Your task to perform on an android device: Search for "The Dispatcher" by John Scalzi on Goodreads Image 0: 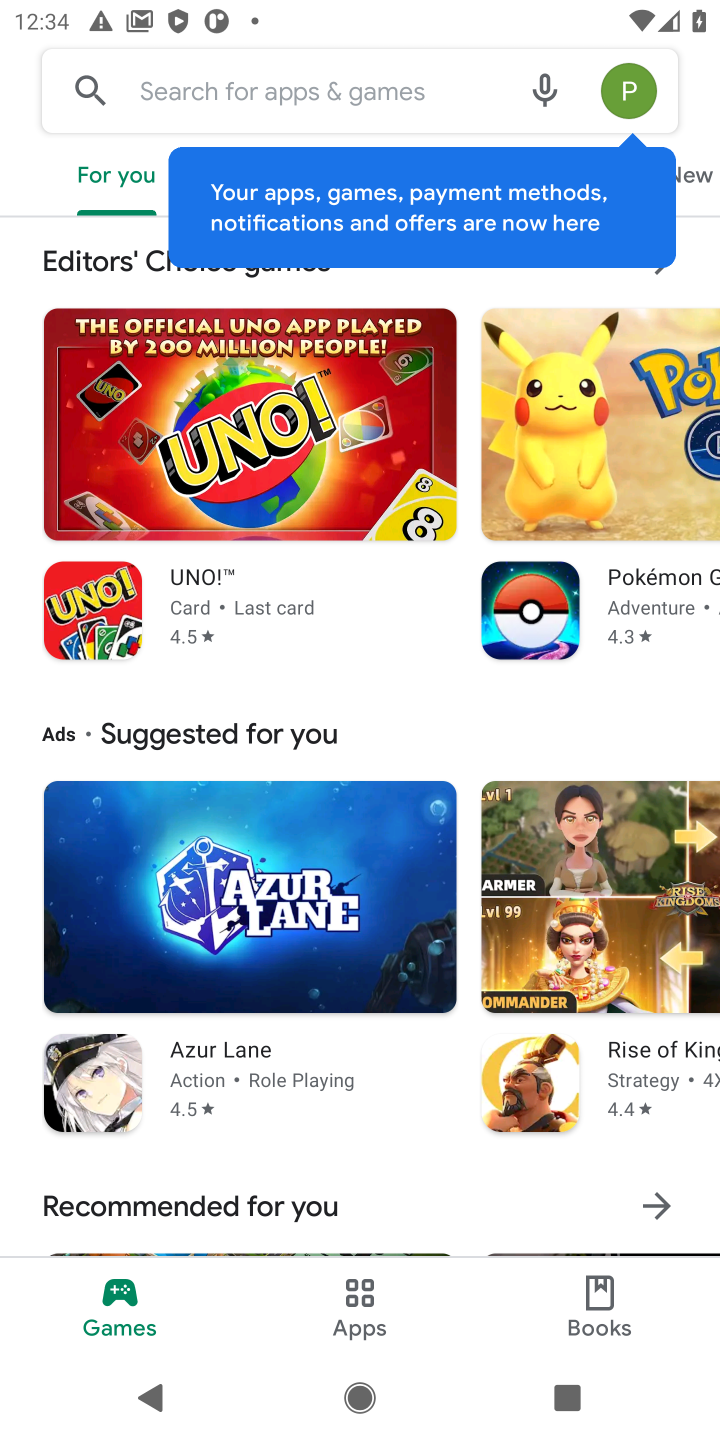
Step 0: press home button
Your task to perform on an android device: Search for "The Dispatcher" by John Scalzi on Goodreads Image 1: 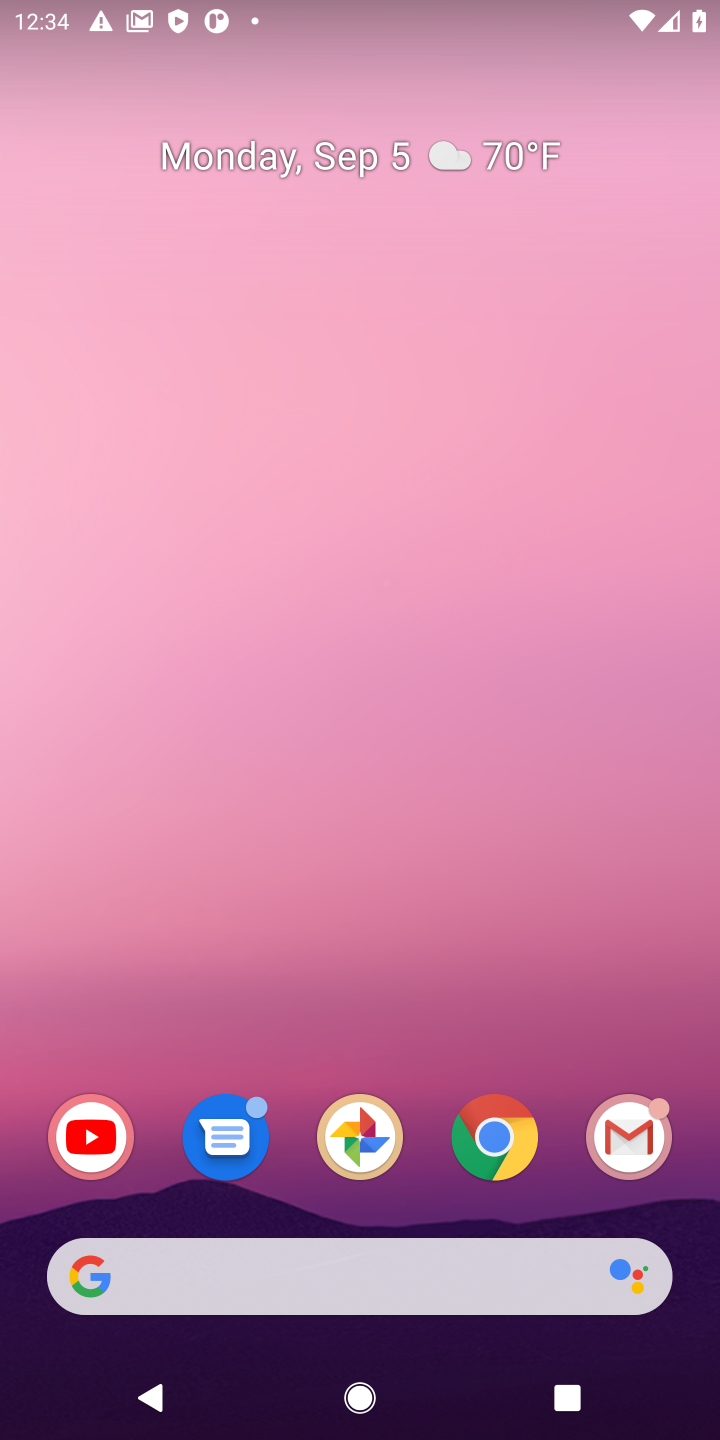
Step 1: click (511, 1190)
Your task to perform on an android device: Search for "The Dispatcher" by John Scalzi on Goodreads Image 2: 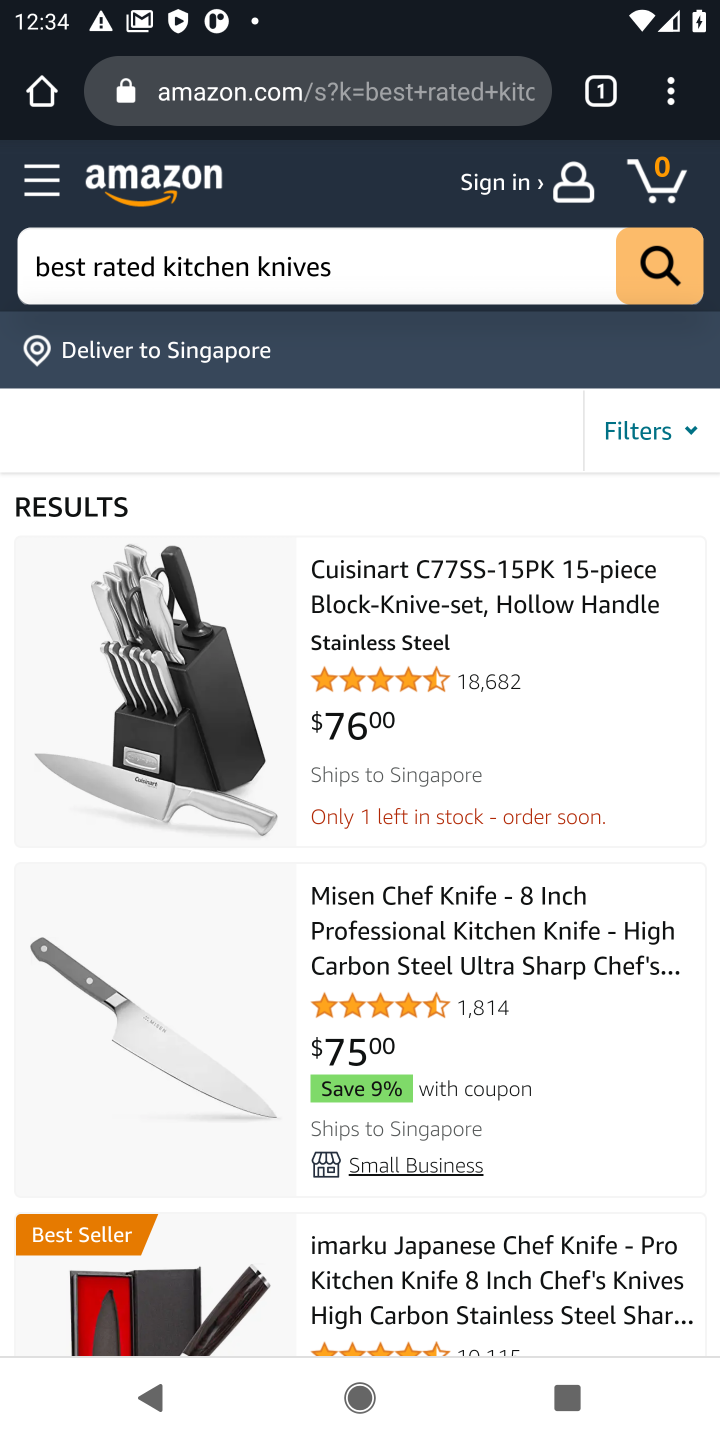
Step 2: click (393, 113)
Your task to perform on an android device: Search for "The Dispatcher" by John Scalzi on Goodreads Image 3: 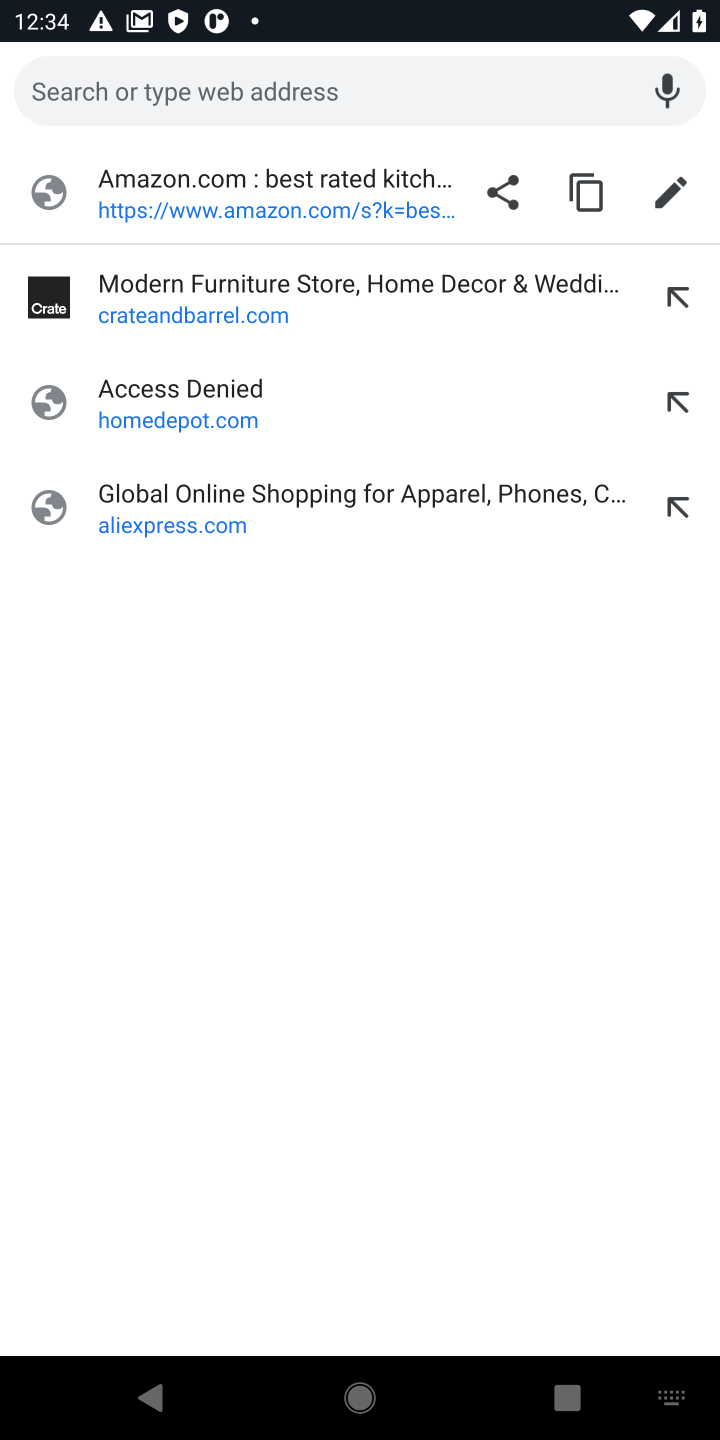
Step 3: type "goodreads"
Your task to perform on an android device: Search for "The Dispatcher" by John Scalzi on Goodreads Image 4: 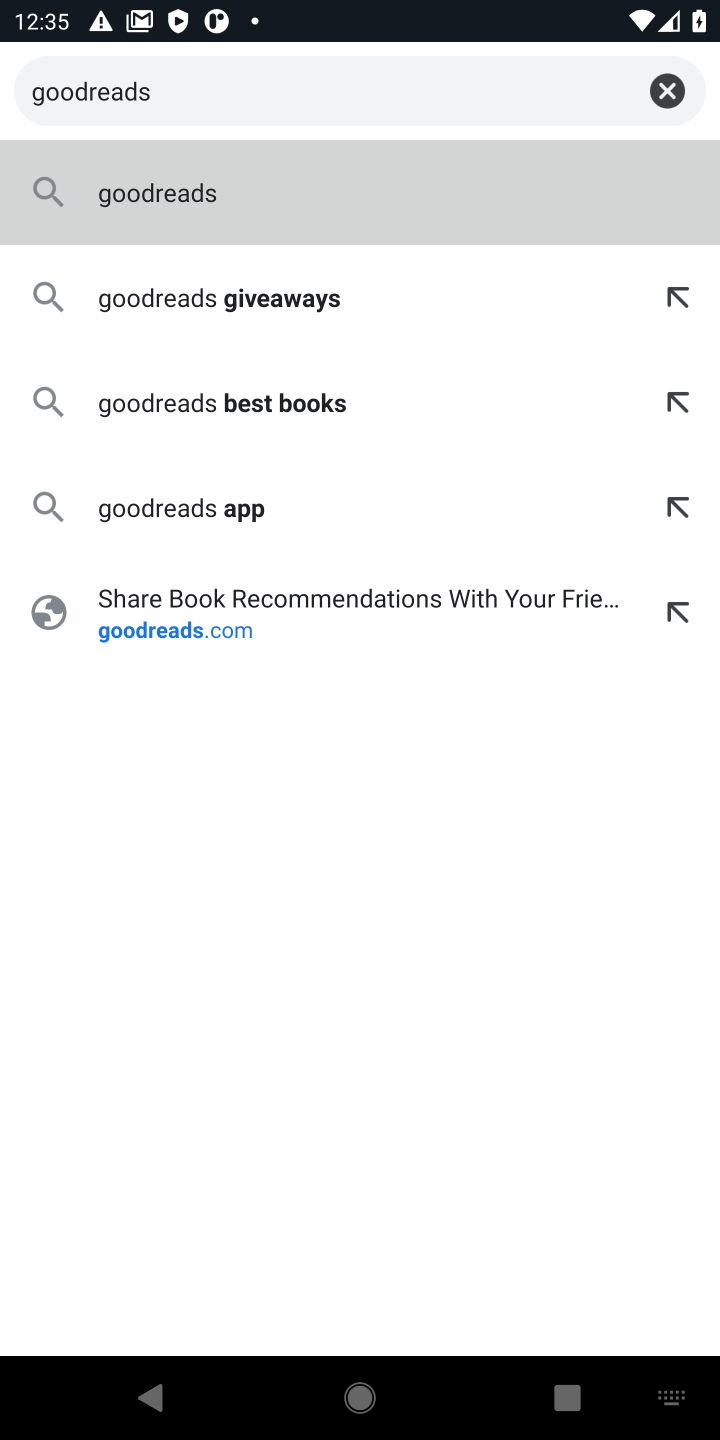
Step 4: click (308, 627)
Your task to perform on an android device: Search for "The Dispatcher" by John Scalzi on Goodreads Image 5: 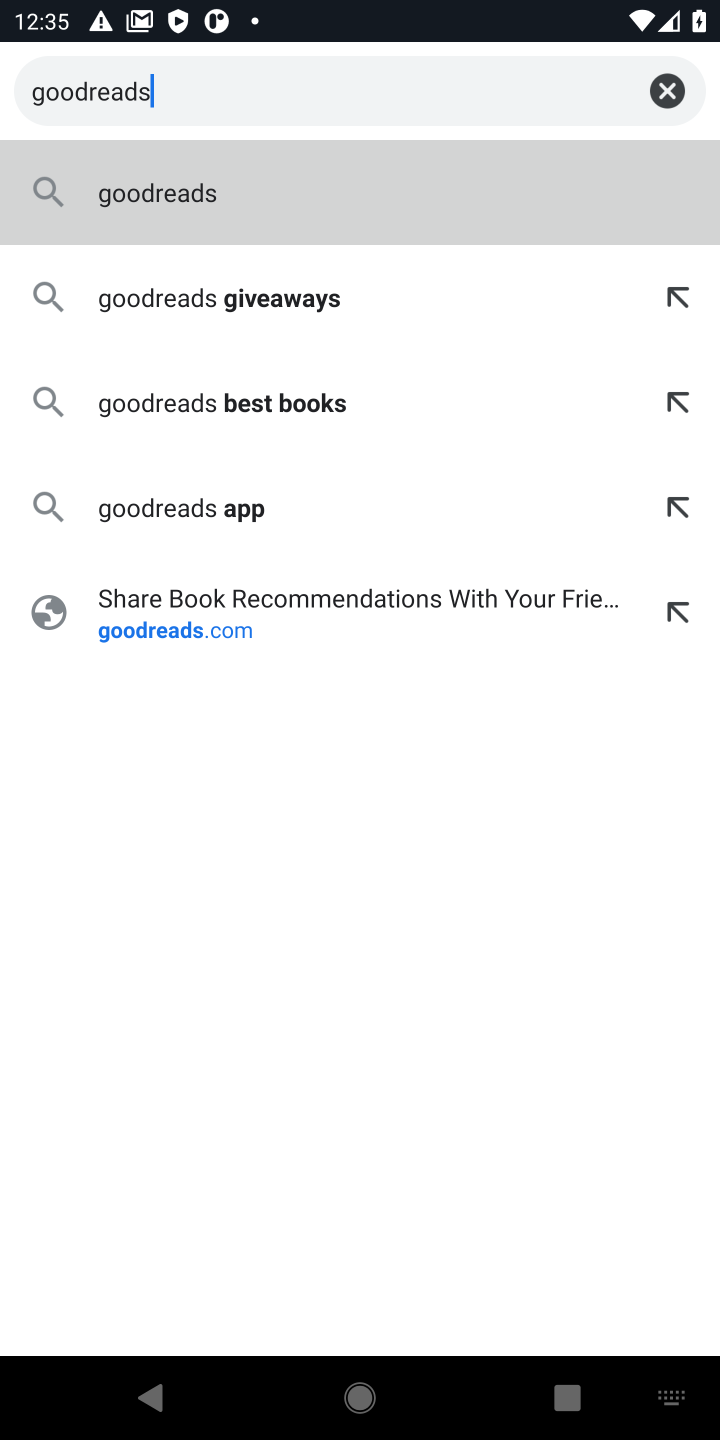
Step 5: click (449, 620)
Your task to perform on an android device: Search for "The Dispatcher" by John Scalzi on Goodreads Image 6: 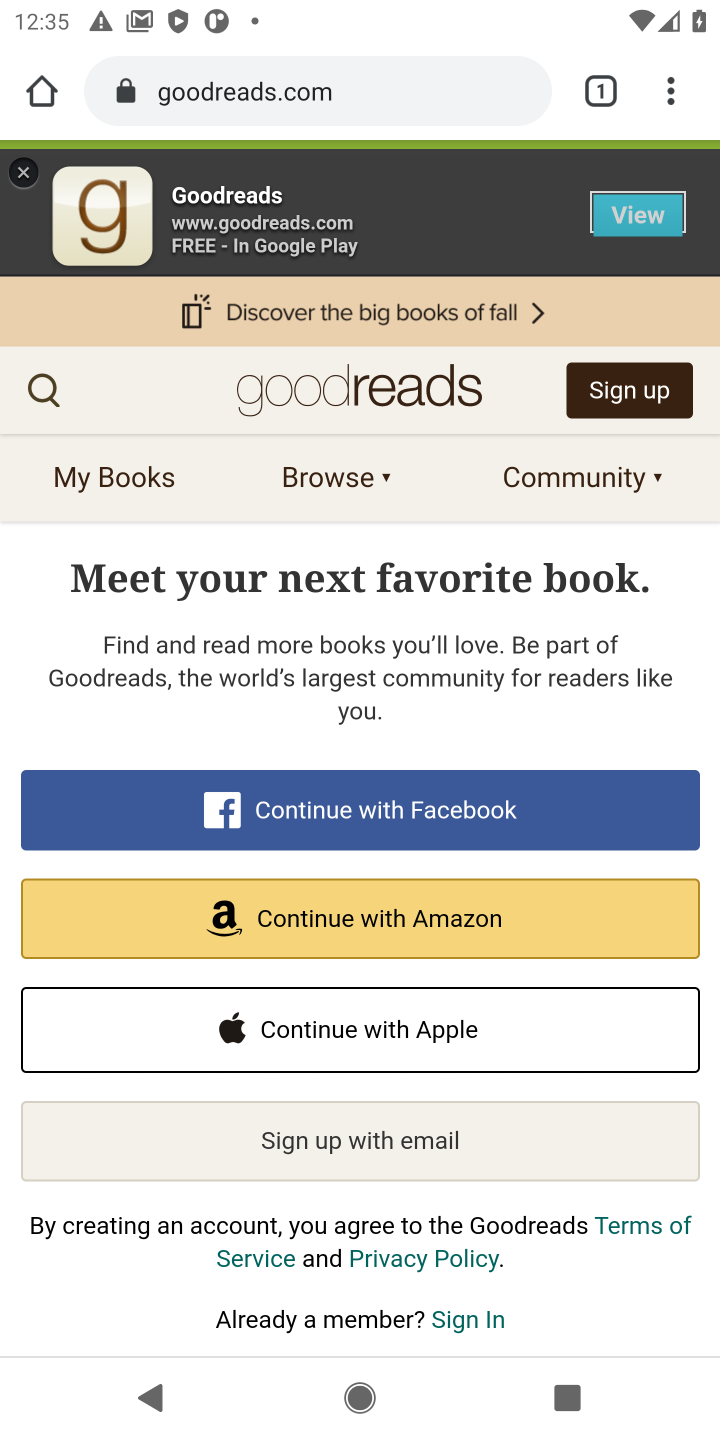
Step 6: click (37, 395)
Your task to perform on an android device: Search for "The Dispatcher" by John Scalzi on Goodreads Image 7: 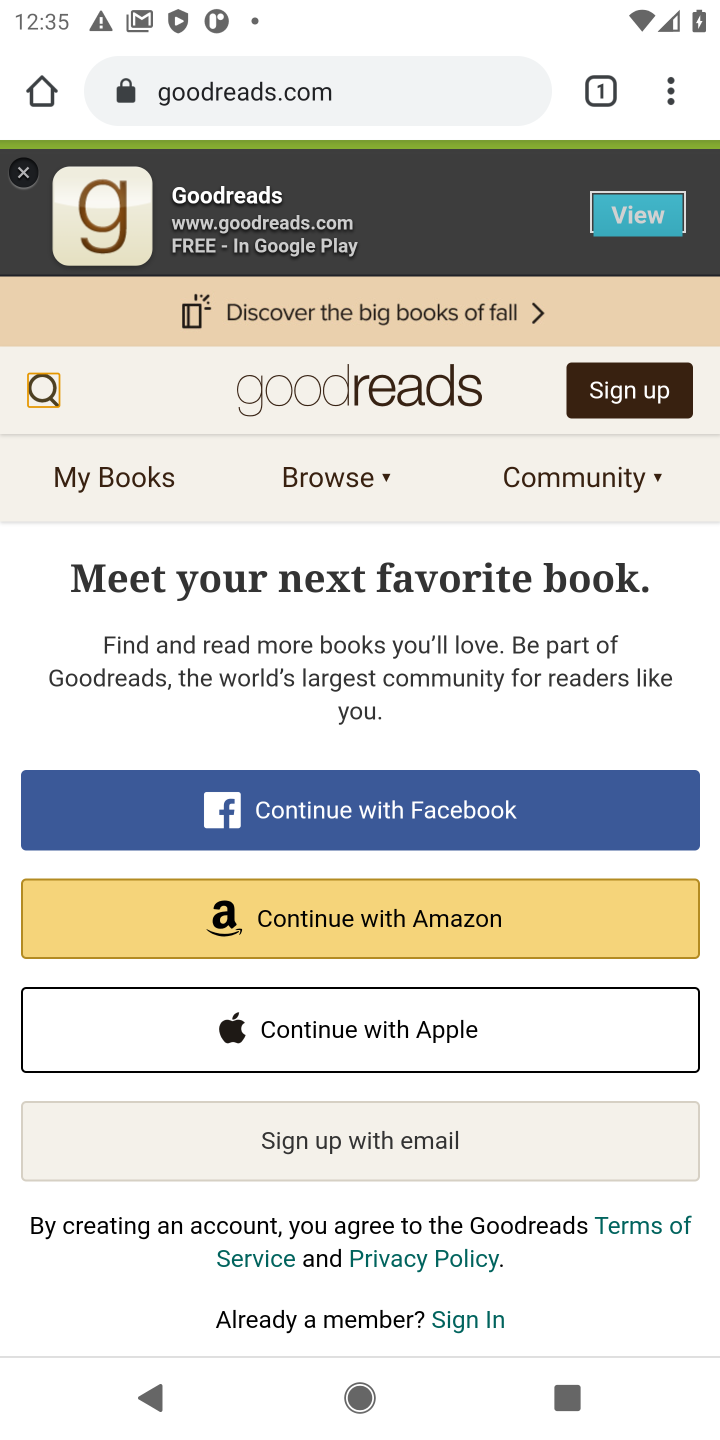
Step 7: click (31, 394)
Your task to perform on an android device: Search for "The Dispatcher" by John Scalzi on Goodreads Image 8: 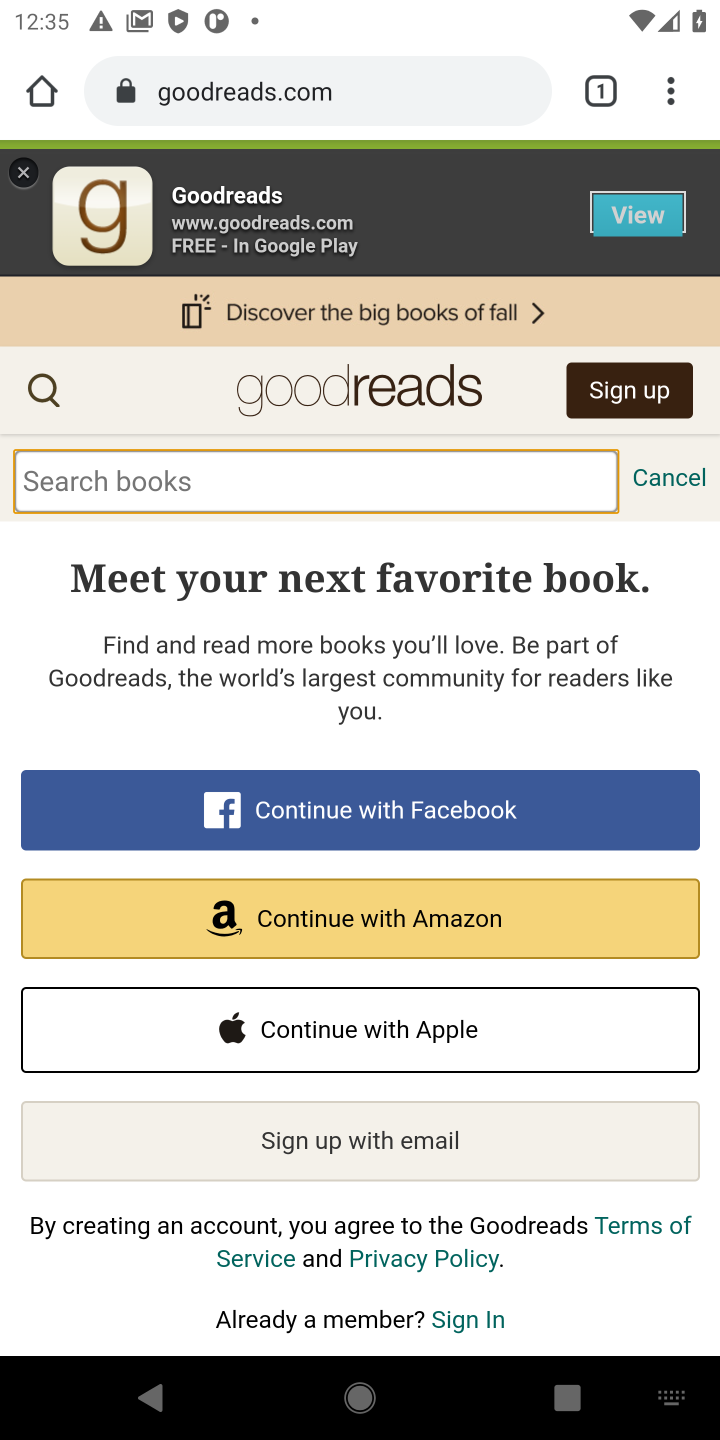
Step 8: click (219, 474)
Your task to perform on an android device: Search for "The Dispatcher" by John Scalzi on Goodreads Image 9: 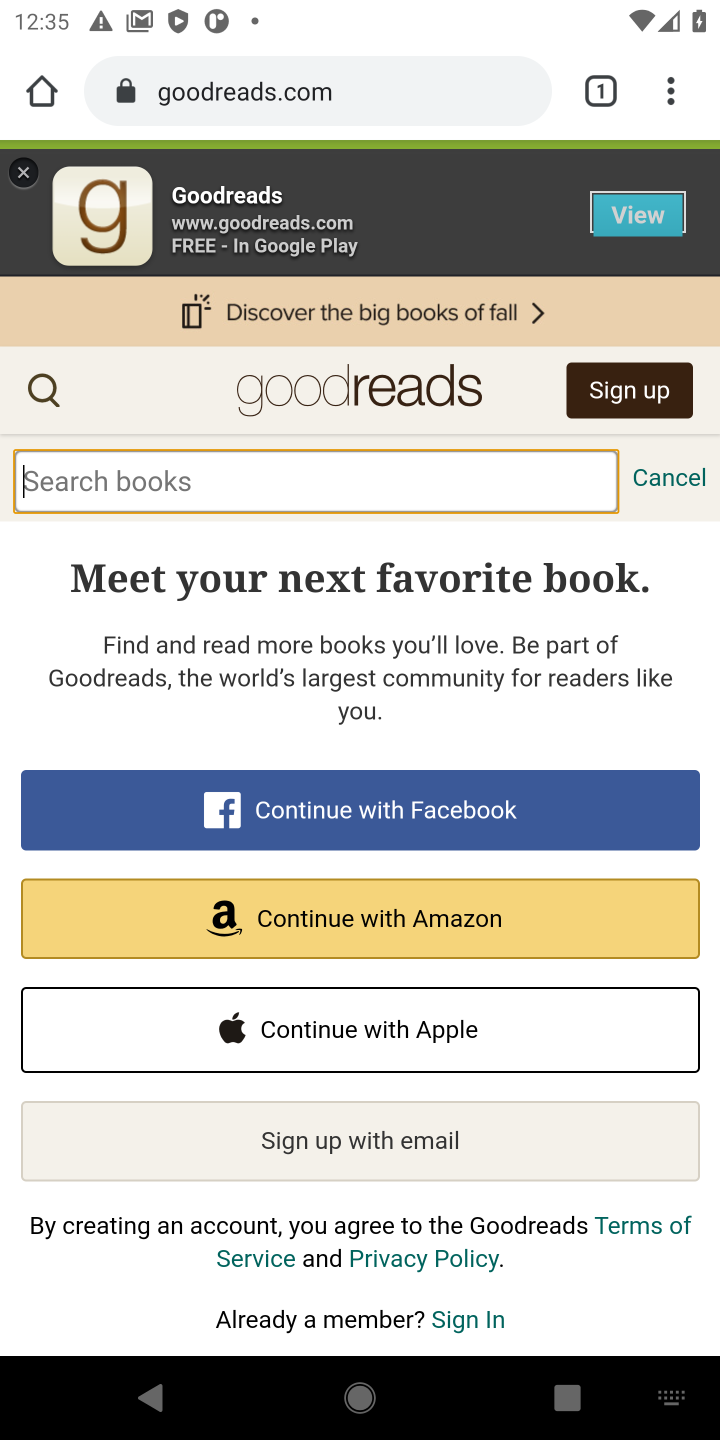
Step 9: type "the dispatcher"
Your task to perform on an android device: Search for "The Dispatcher" by John Scalzi on Goodreads Image 10: 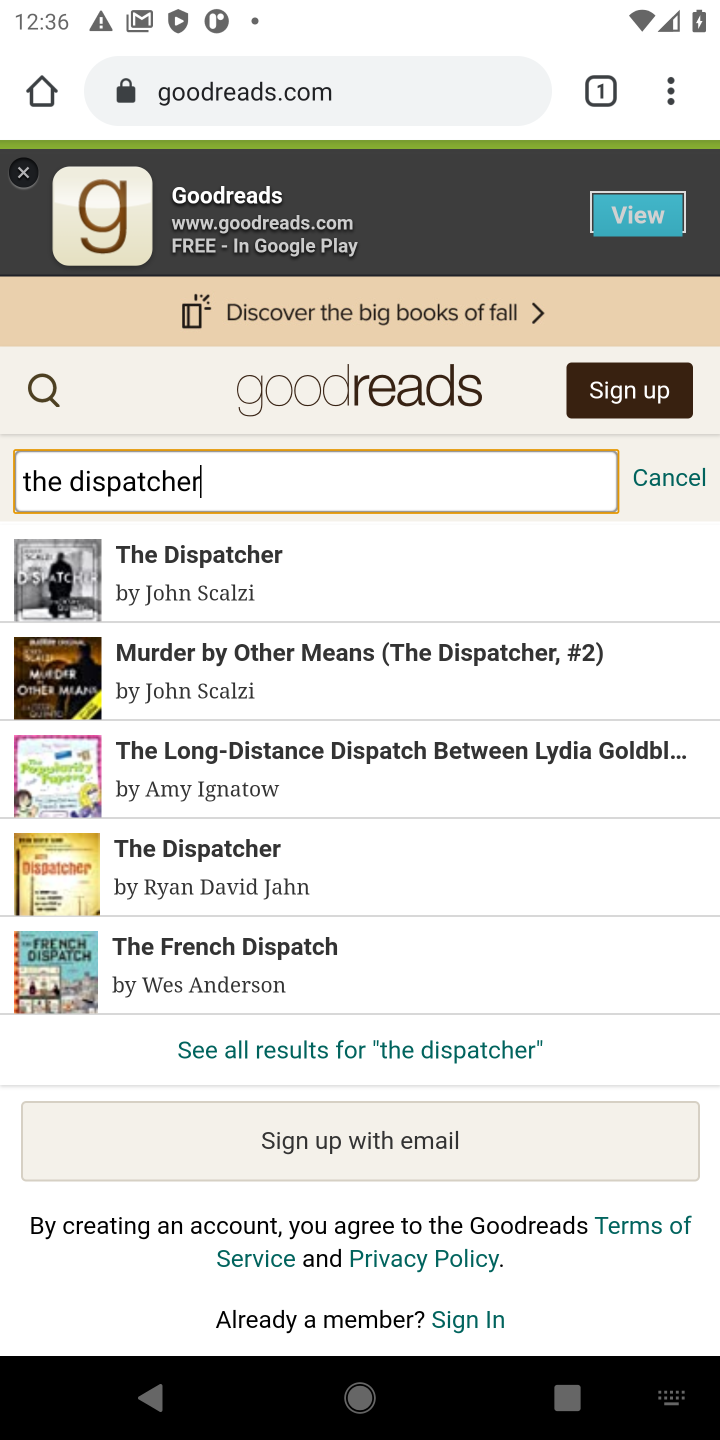
Step 10: click (299, 578)
Your task to perform on an android device: Search for "The Dispatcher" by John Scalzi on Goodreads Image 11: 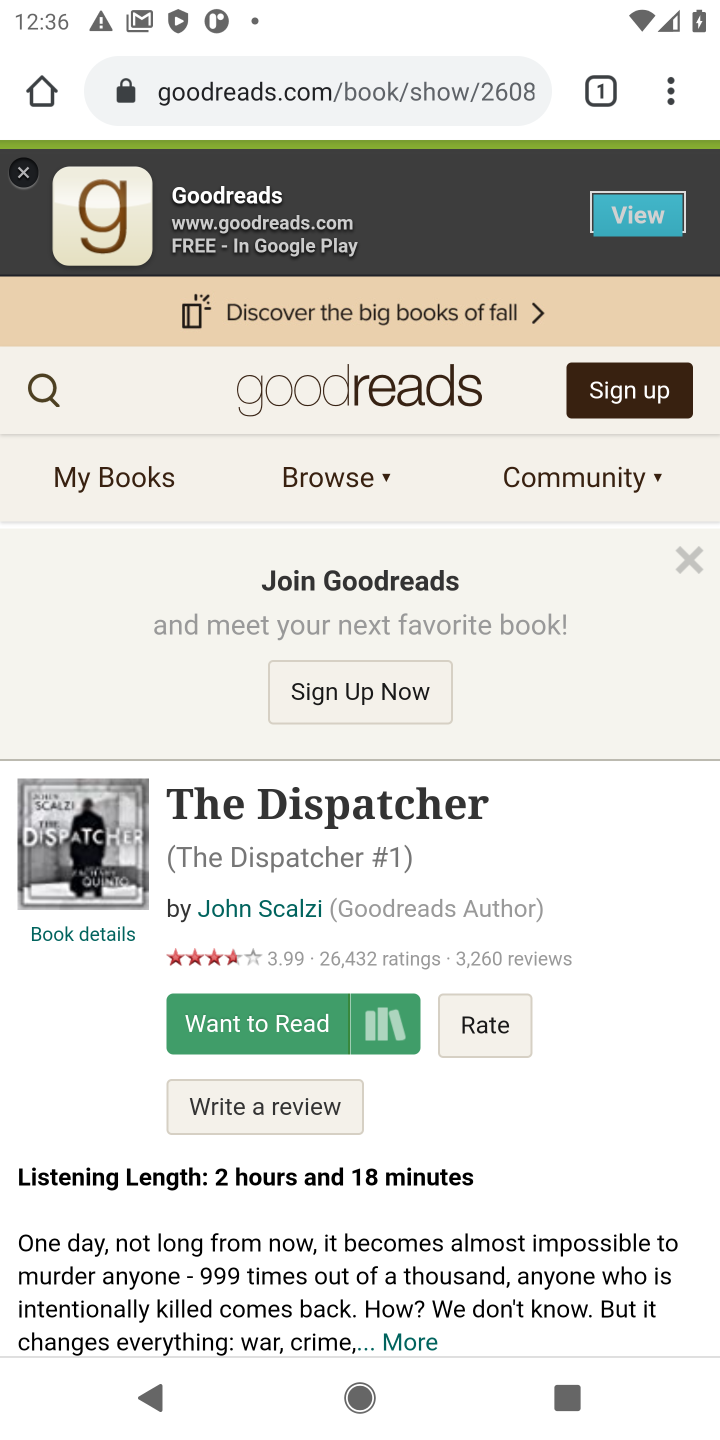
Step 11: task complete